Your task to perform on an android device: What's the weather going to be this weekend? Image 0: 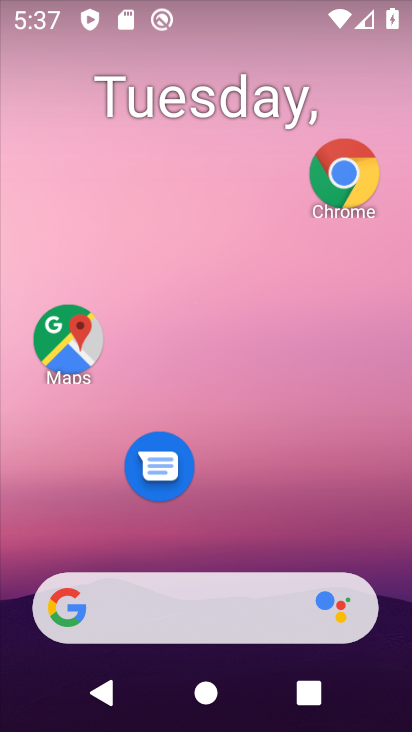
Step 0: click (355, 179)
Your task to perform on an android device: What's the weather going to be this weekend? Image 1: 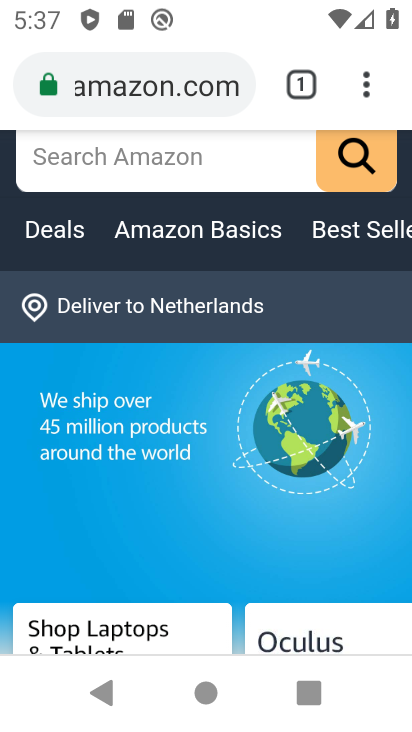
Step 1: click (182, 84)
Your task to perform on an android device: What's the weather going to be this weekend? Image 2: 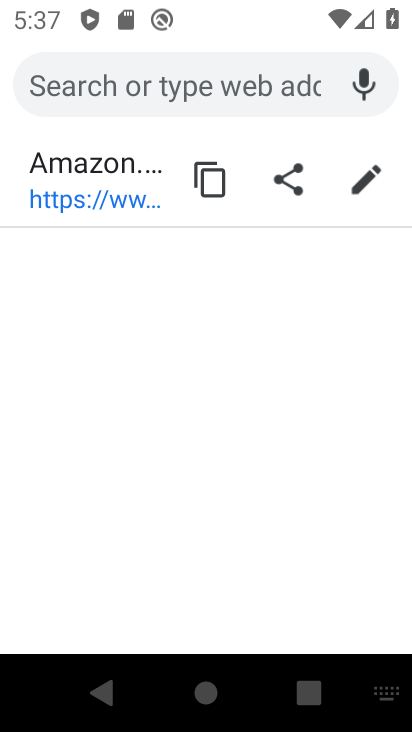
Step 2: type "What's the weather going to be this weekend?"
Your task to perform on an android device: What's the weather going to be this weekend? Image 3: 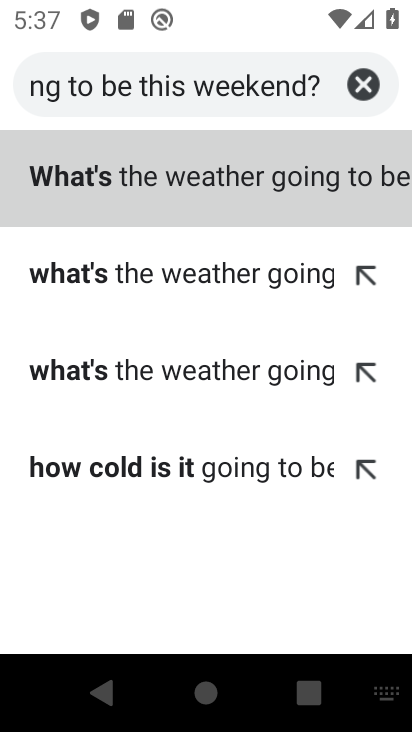
Step 3: click (227, 178)
Your task to perform on an android device: What's the weather going to be this weekend? Image 4: 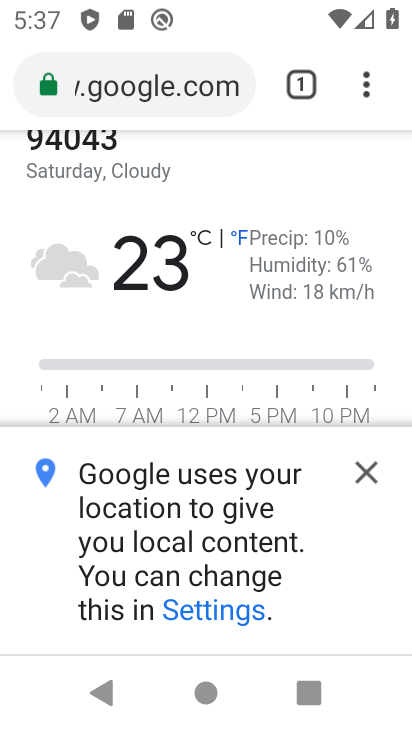
Step 4: task complete